Your task to perform on an android device: remove spam from my inbox in the gmail app Image 0: 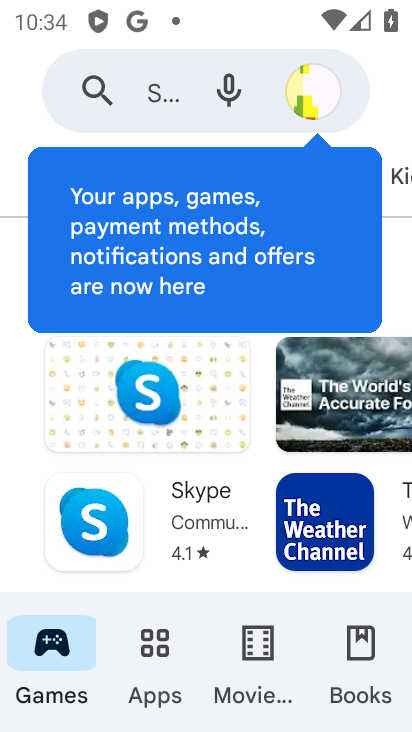
Step 0: press home button
Your task to perform on an android device: remove spam from my inbox in the gmail app Image 1: 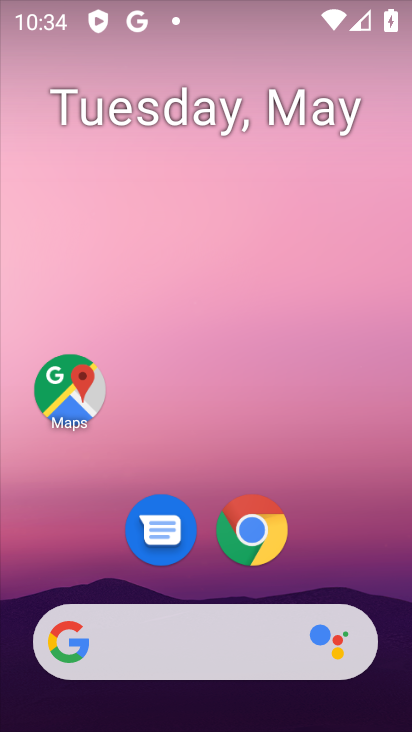
Step 1: drag from (344, 560) to (345, 116)
Your task to perform on an android device: remove spam from my inbox in the gmail app Image 2: 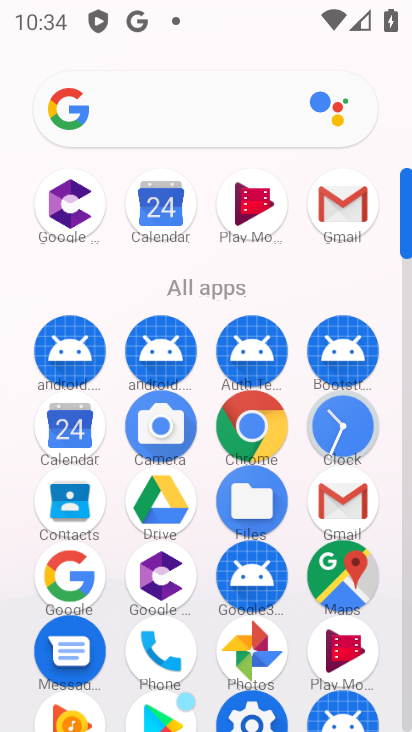
Step 2: click (343, 214)
Your task to perform on an android device: remove spam from my inbox in the gmail app Image 3: 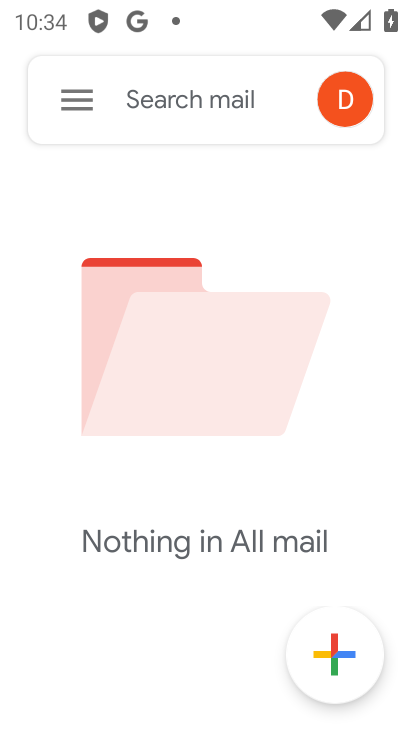
Step 3: click (79, 92)
Your task to perform on an android device: remove spam from my inbox in the gmail app Image 4: 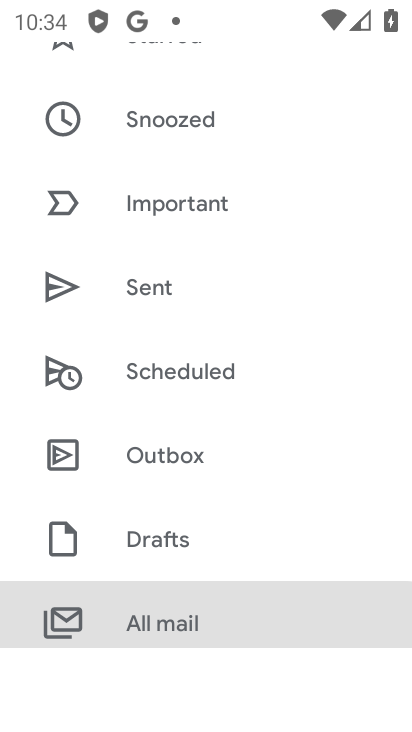
Step 4: drag from (191, 221) to (192, 680)
Your task to perform on an android device: remove spam from my inbox in the gmail app Image 5: 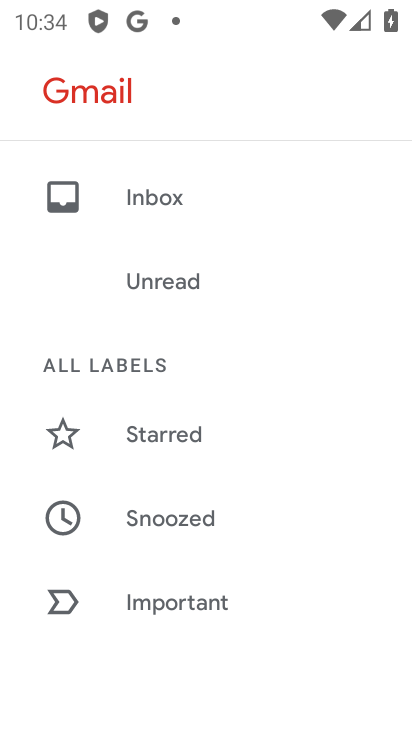
Step 5: click (171, 200)
Your task to perform on an android device: remove spam from my inbox in the gmail app Image 6: 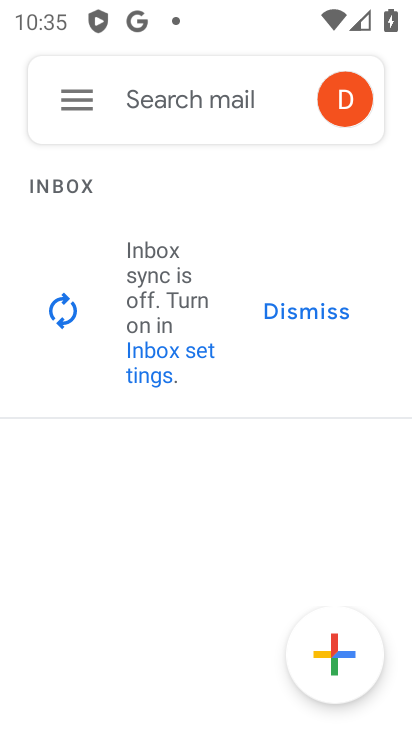
Step 6: task complete